Your task to perform on an android device: What's the weather? Image 0: 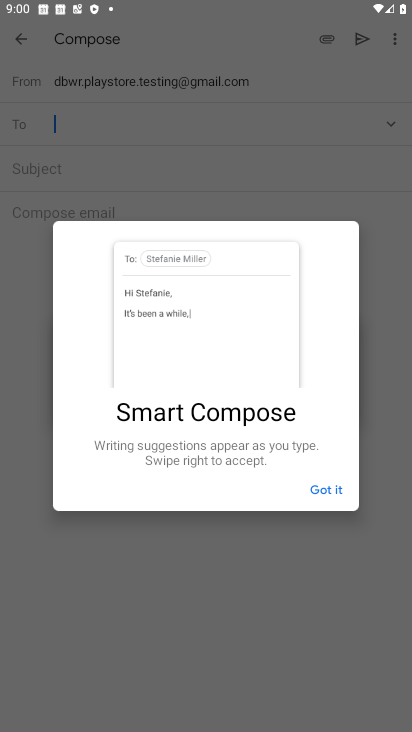
Step 0: click (341, 392)
Your task to perform on an android device: What's the weather? Image 1: 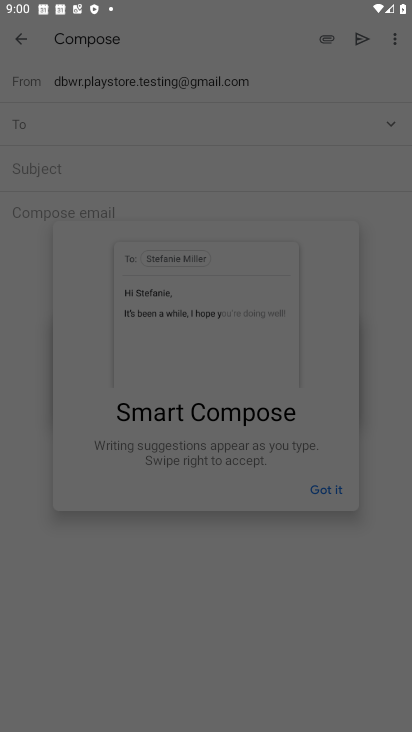
Step 1: press home button
Your task to perform on an android device: What's the weather? Image 2: 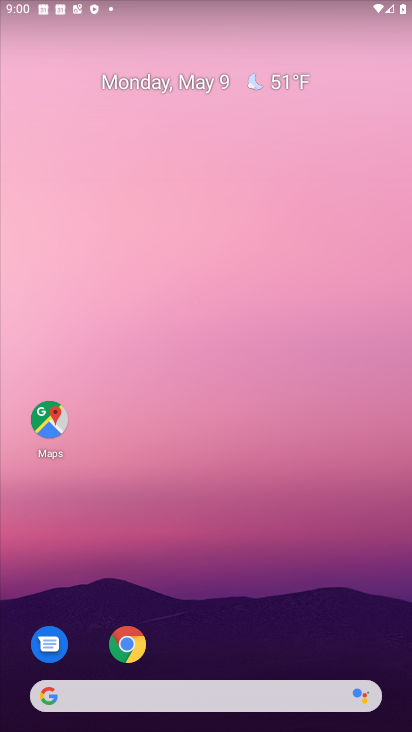
Step 2: click (165, 683)
Your task to perform on an android device: What's the weather? Image 3: 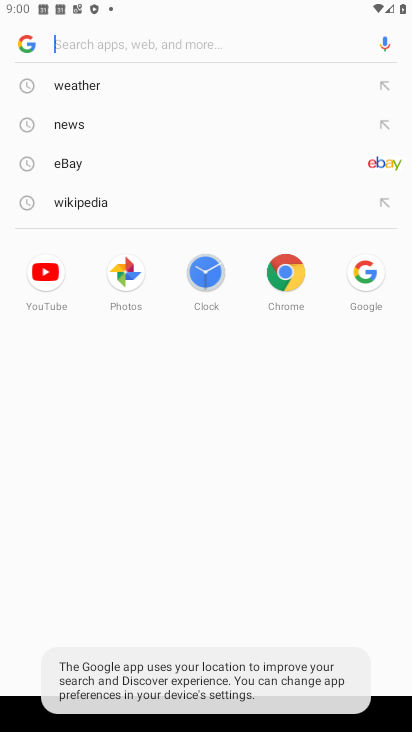
Step 3: click (114, 86)
Your task to perform on an android device: What's the weather? Image 4: 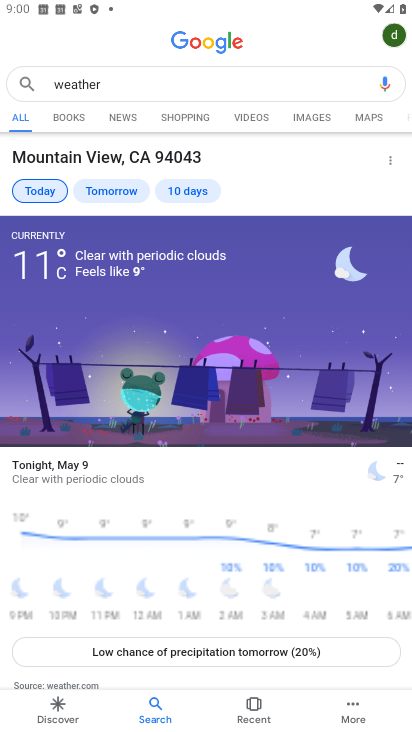
Step 4: task complete